Your task to perform on an android device: Is it going to rain this weekend? Image 0: 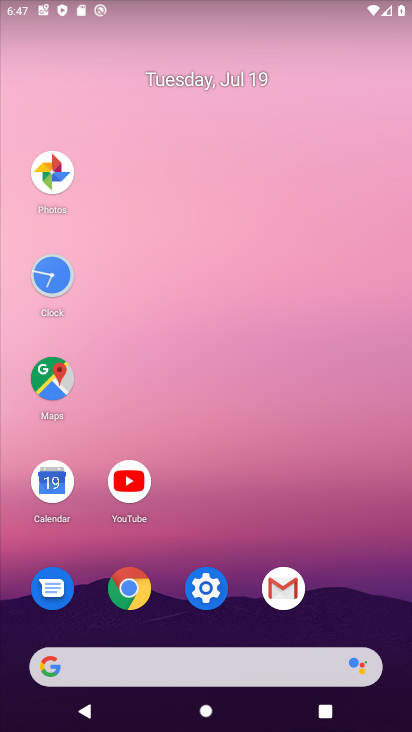
Step 0: click (183, 657)
Your task to perform on an android device: Is it going to rain this weekend? Image 1: 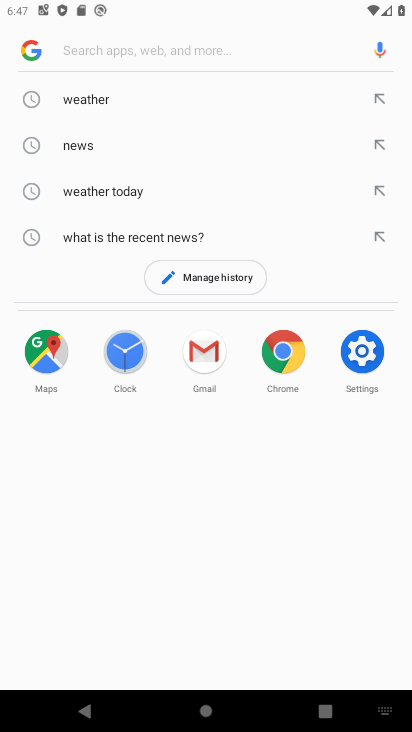
Step 1: click (91, 98)
Your task to perform on an android device: Is it going to rain this weekend? Image 2: 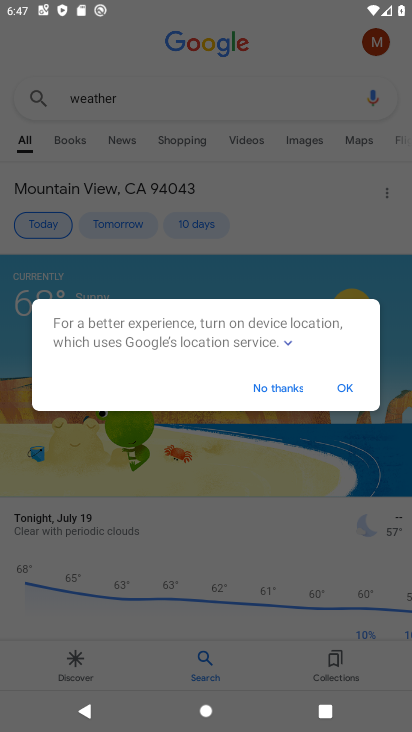
Step 2: click (344, 385)
Your task to perform on an android device: Is it going to rain this weekend? Image 3: 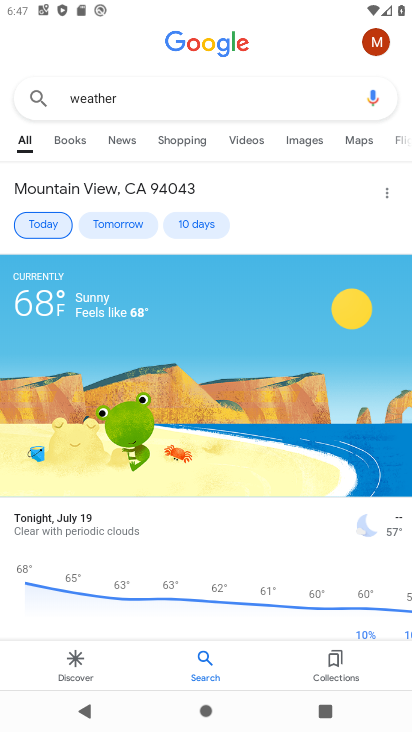
Step 3: click (192, 223)
Your task to perform on an android device: Is it going to rain this weekend? Image 4: 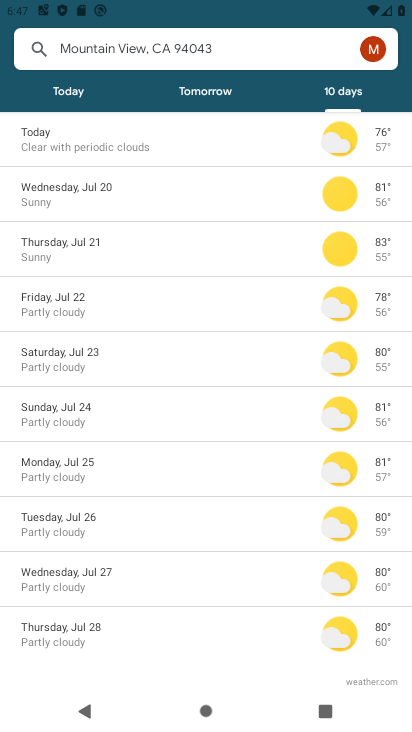
Step 4: task complete